Your task to perform on an android device: Open Maps and search for coffee Image 0: 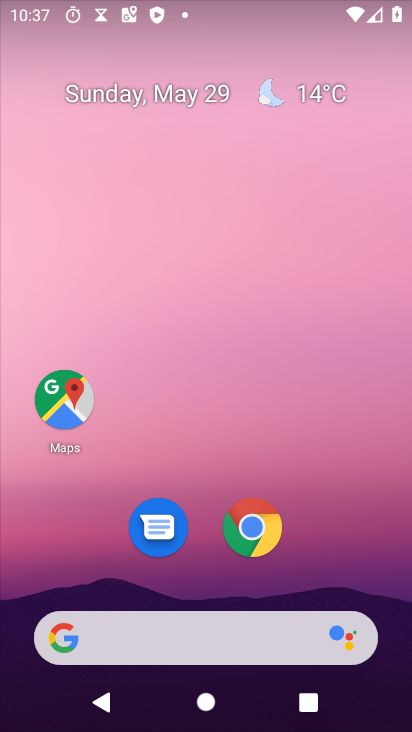
Step 0: press home button
Your task to perform on an android device: Open Maps and search for coffee Image 1: 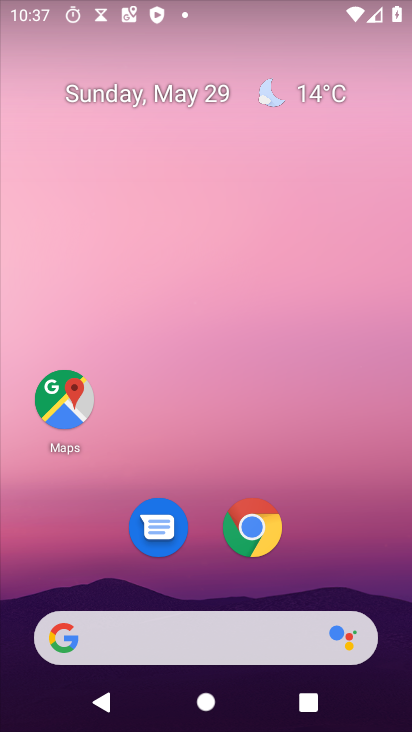
Step 1: click (60, 409)
Your task to perform on an android device: Open Maps and search for coffee Image 2: 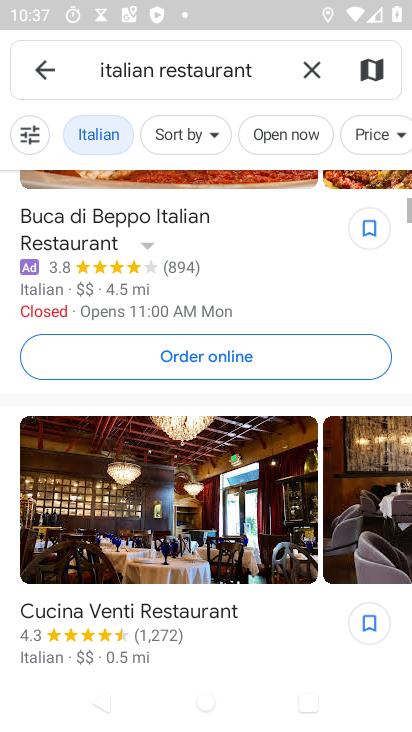
Step 2: click (309, 74)
Your task to perform on an android device: Open Maps and search for coffee Image 3: 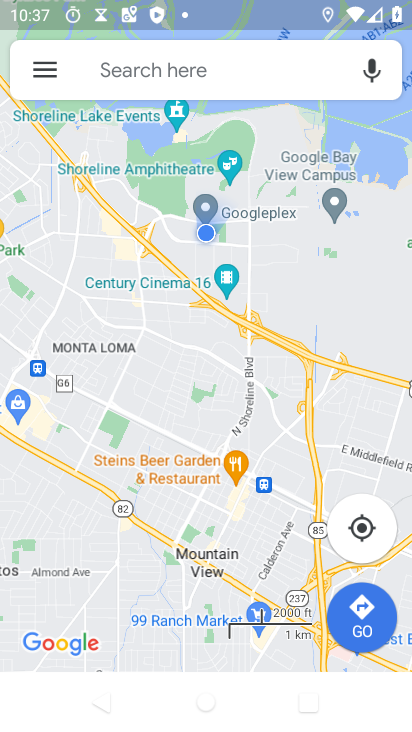
Step 3: click (128, 66)
Your task to perform on an android device: Open Maps and search for coffee Image 4: 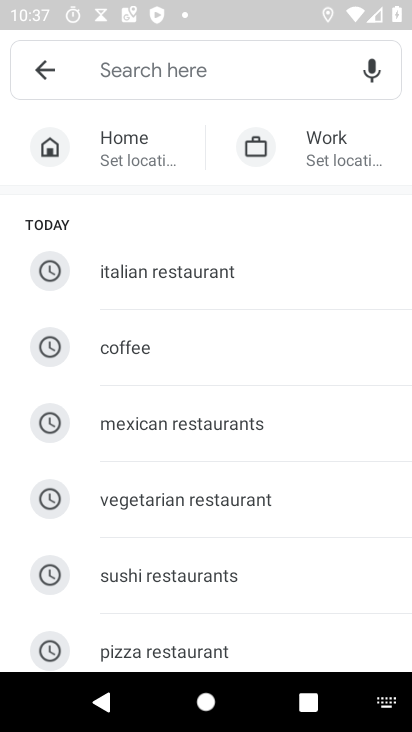
Step 4: click (102, 346)
Your task to perform on an android device: Open Maps and search for coffee Image 5: 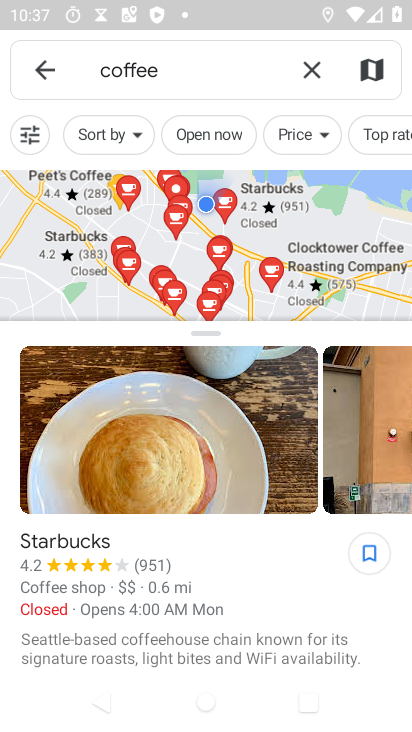
Step 5: task complete